Your task to perform on an android device: toggle show notifications on the lock screen Image 0: 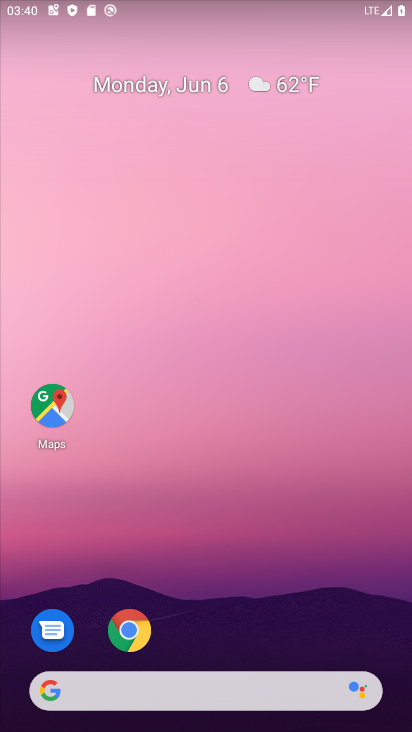
Step 0: drag from (274, 641) to (220, 148)
Your task to perform on an android device: toggle show notifications on the lock screen Image 1: 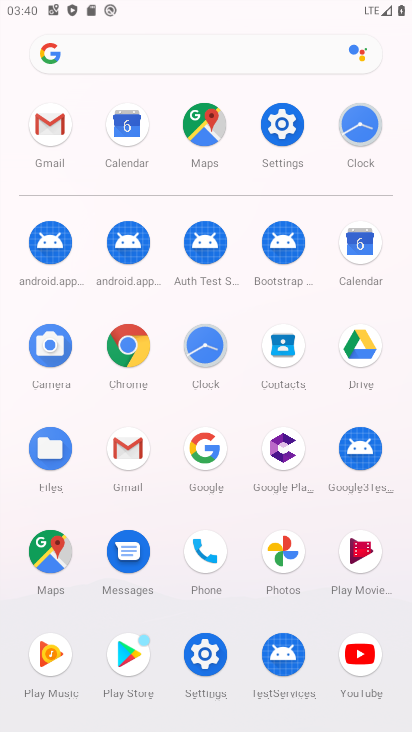
Step 1: click (291, 138)
Your task to perform on an android device: toggle show notifications on the lock screen Image 2: 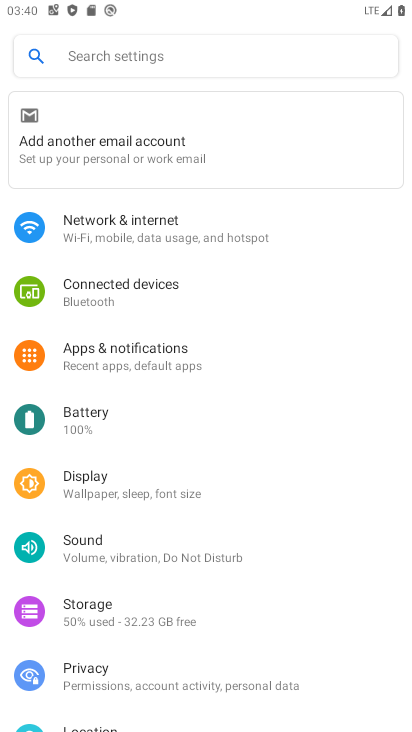
Step 2: click (167, 340)
Your task to perform on an android device: toggle show notifications on the lock screen Image 3: 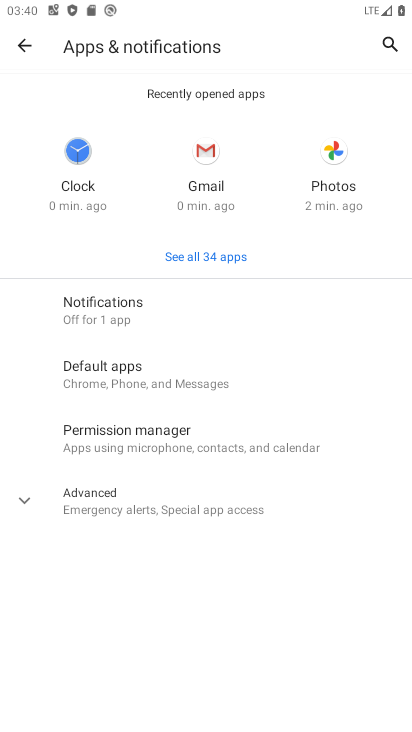
Step 3: click (82, 472)
Your task to perform on an android device: toggle show notifications on the lock screen Image 4: 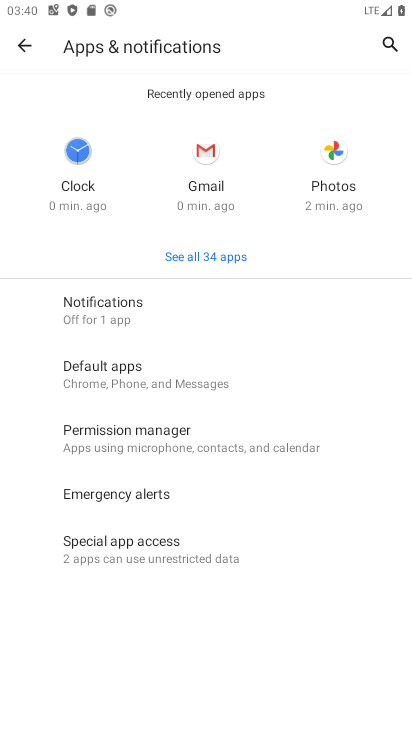
Step 4: click (125, 327)
Your task to perform on an android device: toggle show notifications on the lock screen Image 5: 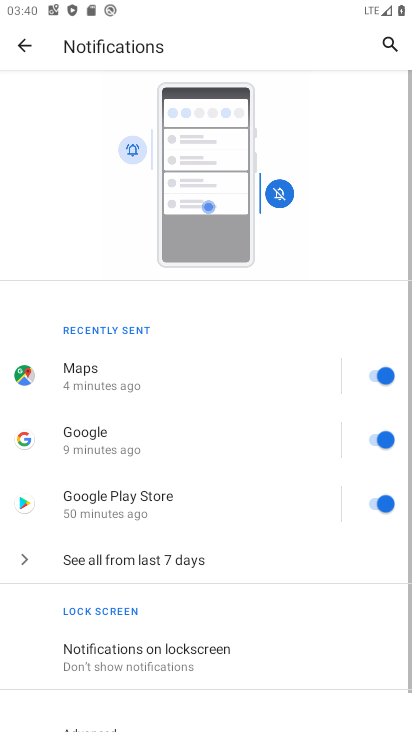
Step 5: click (126, 652)
Your task to perform on an android device: toggle show notifications on the lock screen Image 6: 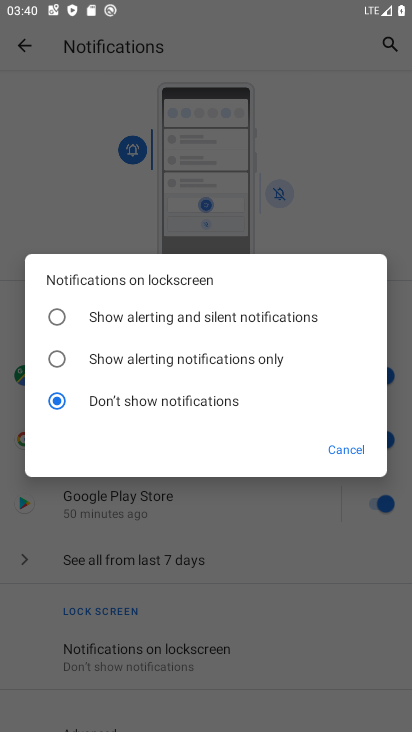
Step 6: click (92, 341)
Your task to perform on an android device: toggle show notifications on the lock screen Image 7: 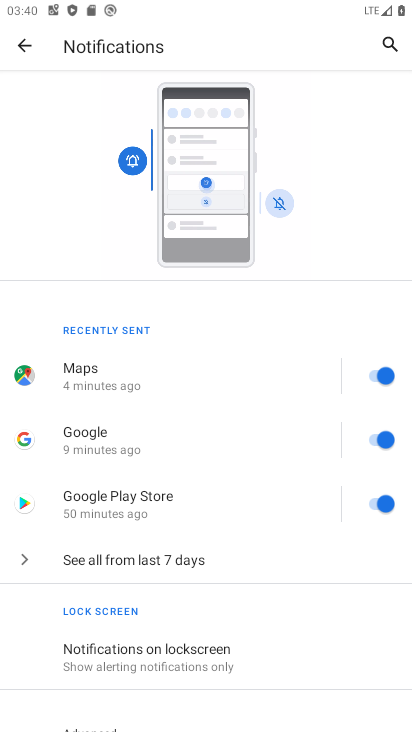
Step 7: task complete